Your task to perform on an android device: check android version Image 0: 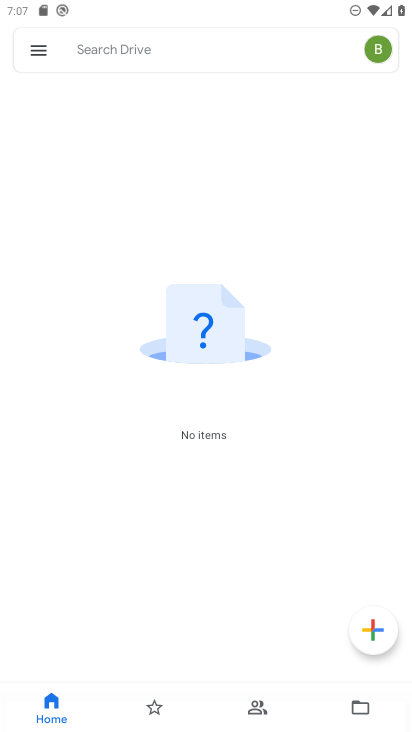
Step 0: press home button
Your task to perform on an android device: check android version Image 1: 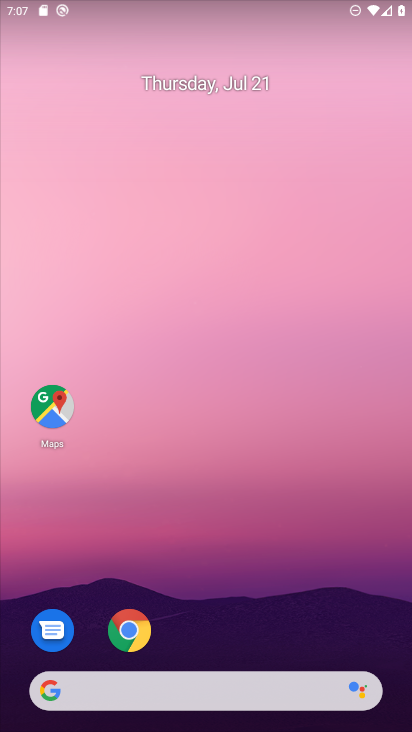
Step 1: drag from (280, 609) to (376, 180)
Your task to perform on an android device: check android version Image 2: 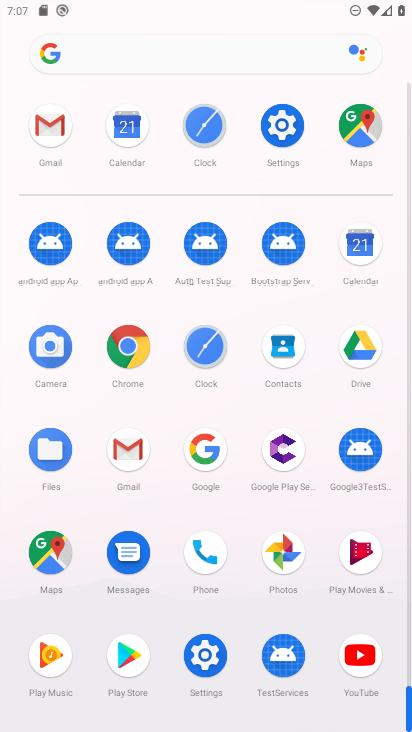
Step 2: click (276, 125)
Your task to perform on an android device: check android version Image 3: 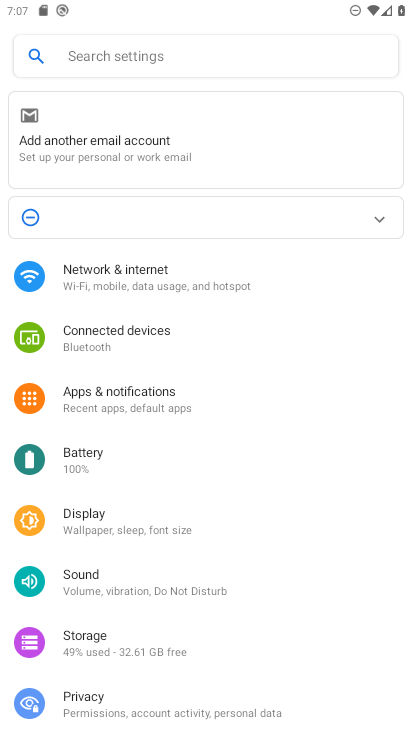
Step 3: drag from (222, 623) to (291, 311)
Your task to perform on an android device: check android version Image 4: 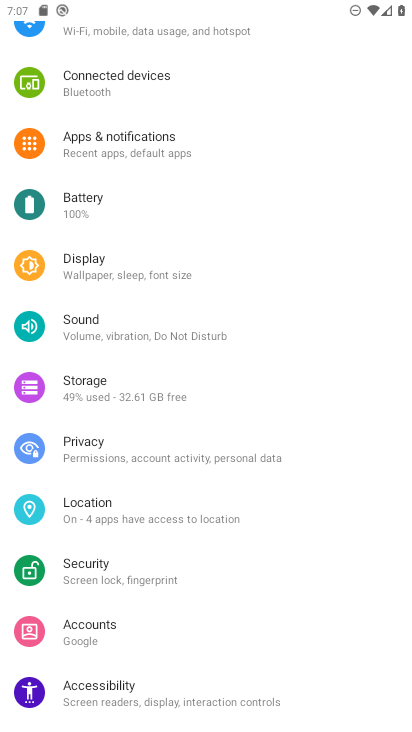
Step 4: drag from (227, 631) to (305, 311)
Your task to perform on an android device: check android version Image 5: 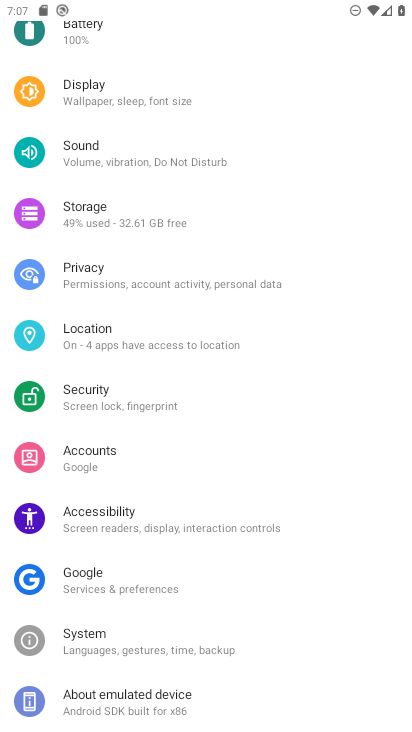
Step 5: click (140, 707)
Your task to perform on an android device: check android version Image 6: 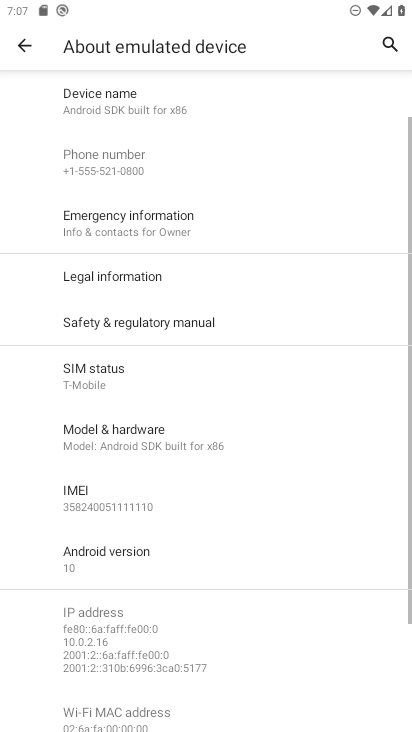
Step 6: click (147, 564)
Your task to perform on an android device: check android version Image 7: 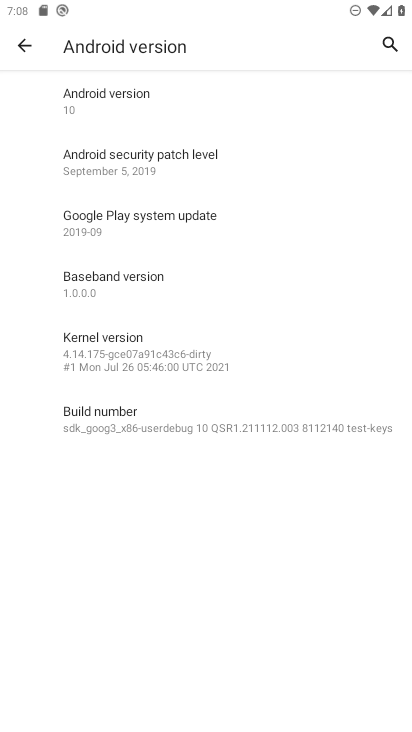
Step 7: task complete